Your task to perform on an android device: Go to Wikipedia Image 0: 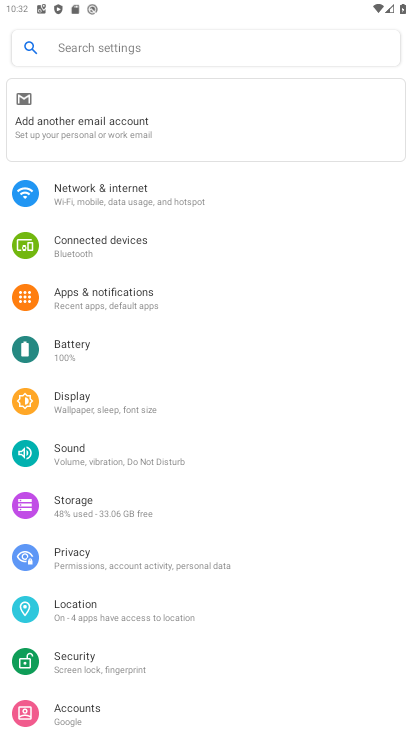
Step 0: press home button
Your task to perform on an android device: Go to Wikipedia Image 1: 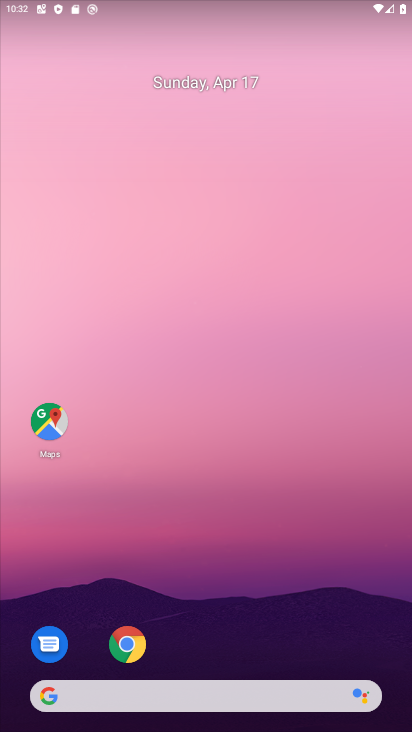
Step 1: click (120, 637)
Your task to perform on an android device: Go to Wikipedia Image 2: 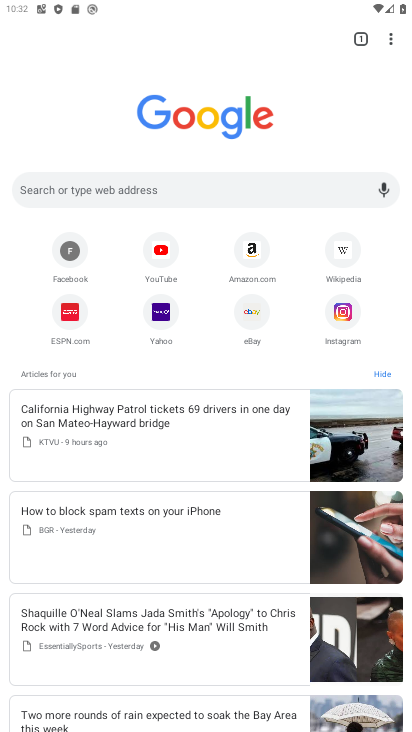
Step 2: click (348, 253)
Your task to perform on an android device: Go to Wikipedia Image 3: 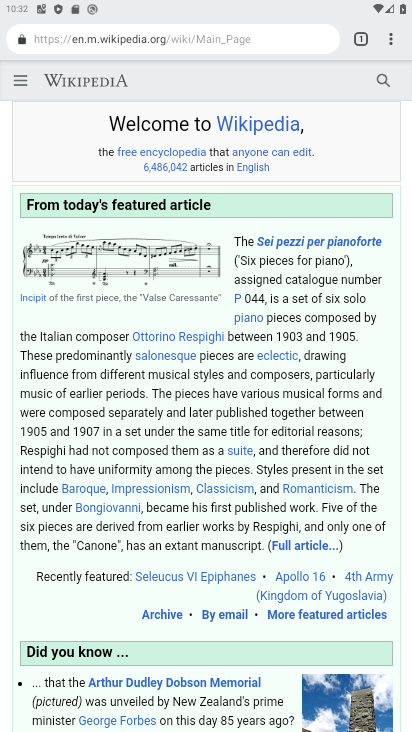
Step 3: task complete